Your task to perform on an android device: toggle pop-ups in chrome Image 0: 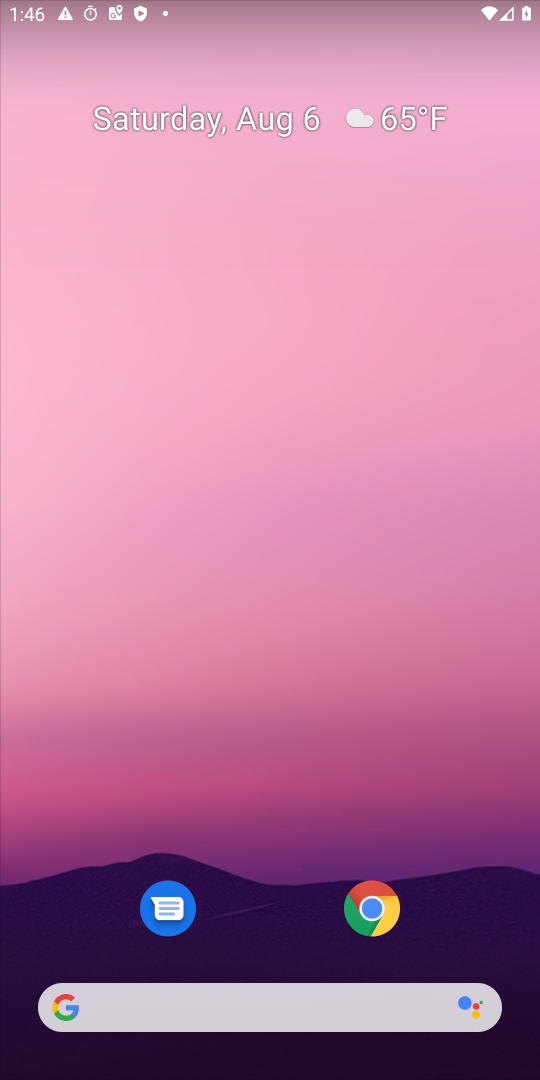
Step 0: click (355, 908)
Your task to perform on an android device: toggle pop-ups in chrome Image 1: 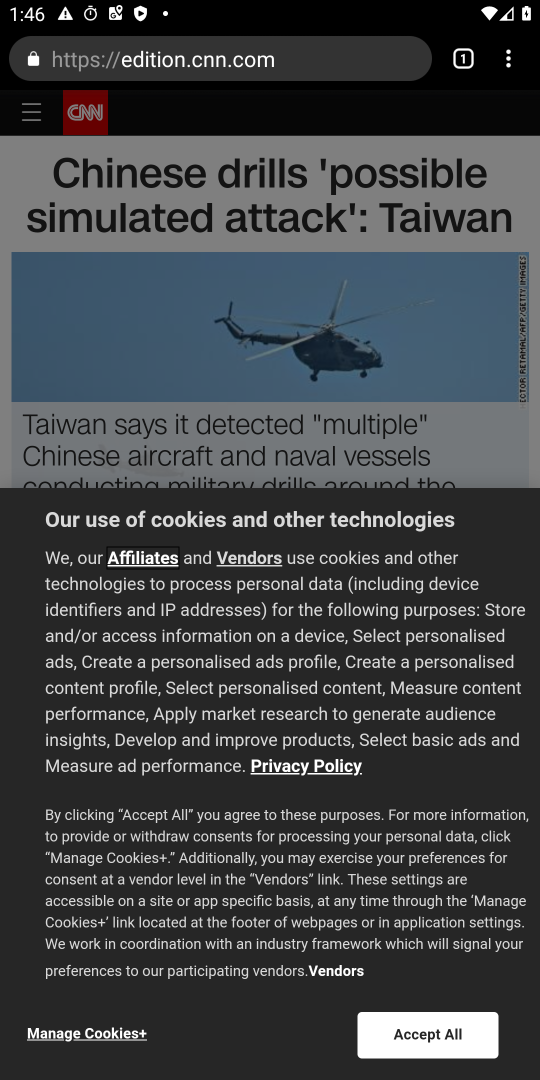
Step 1: click (517, 48)
Your task to perform on an android device: toggle pop-ups in chrome Image 2: 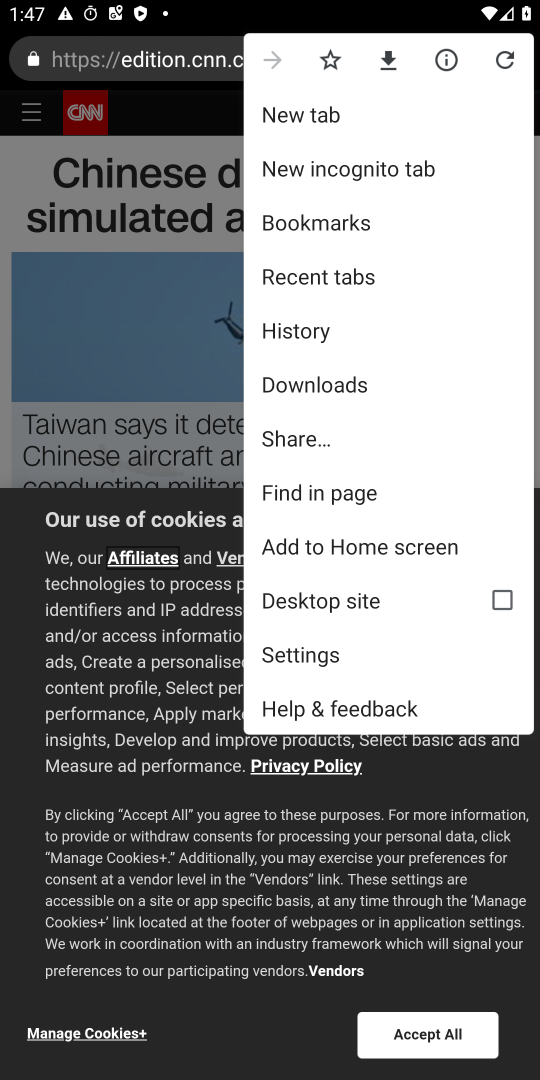
Step 2: click (318, 639)
Your task to perform on an android device: toggle pop-ups in chrome Image 3: 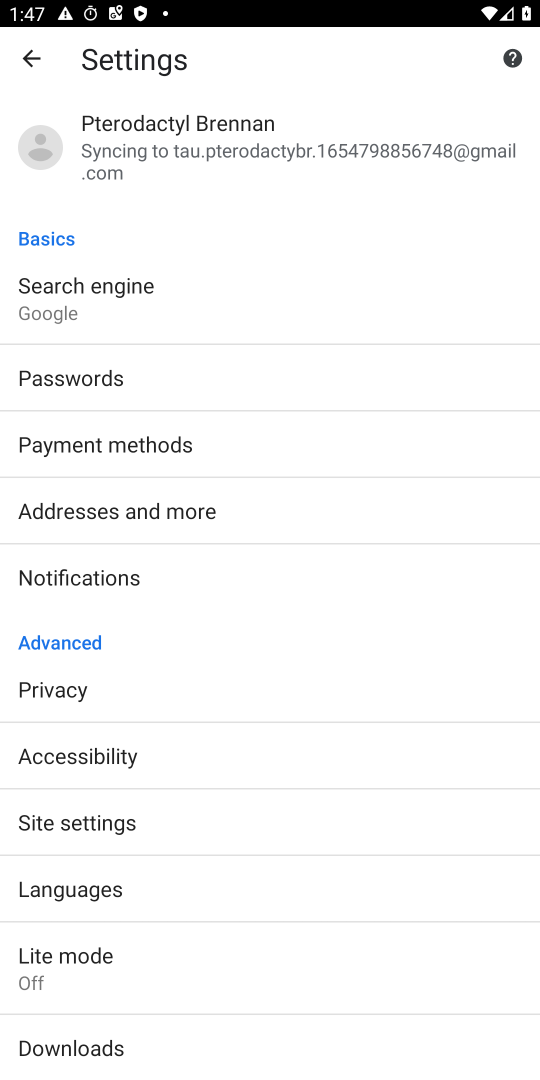
Step 3: click (134, 826)
Your task to perform on an android device: toggle pop-ups in chrome Image 4: 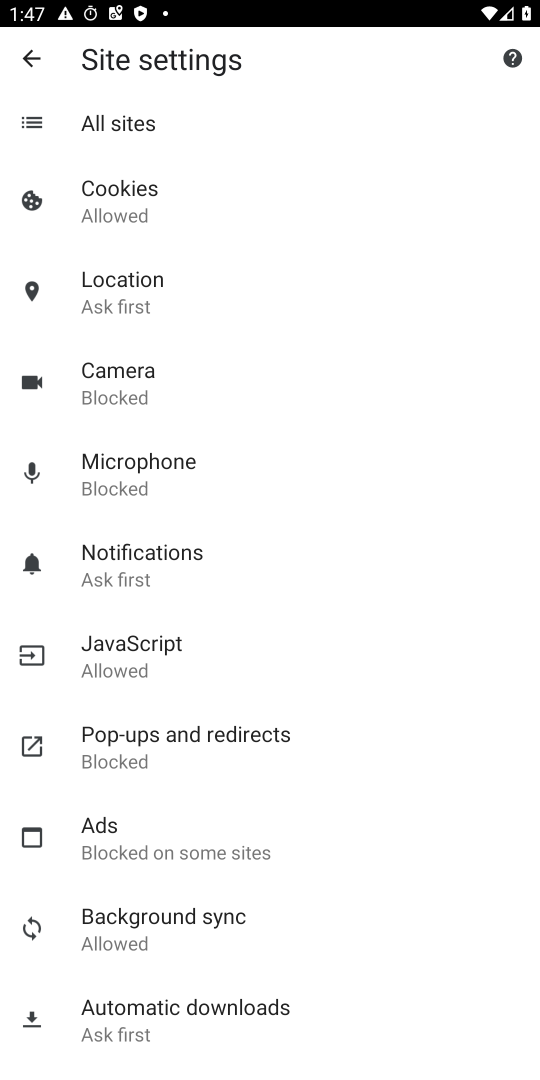
Step 4: click (189, 748)
Your task to perform on an android device: toggle pop-ups in chrome Image 5: 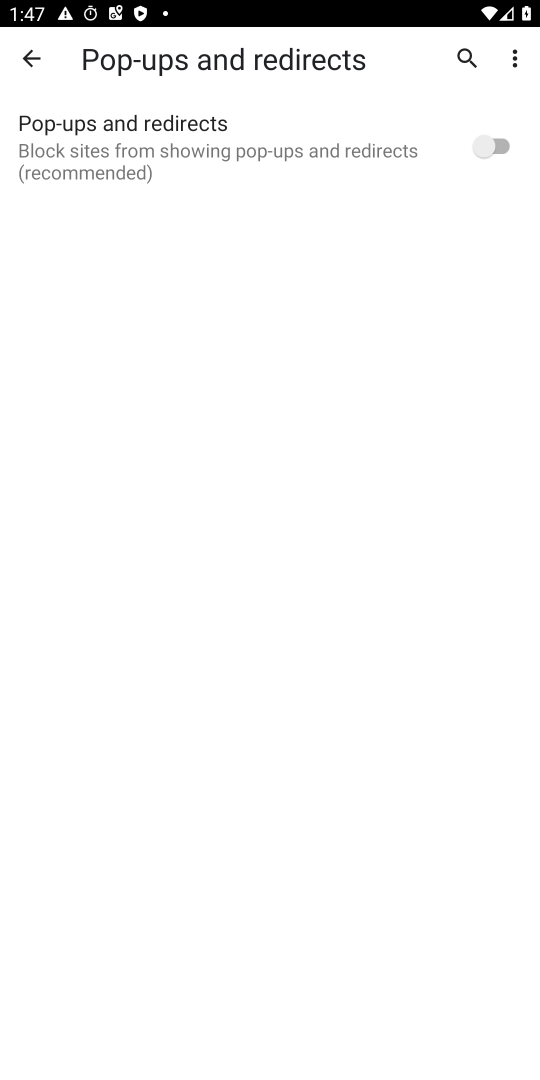
Step 5: click (489, 120)
Your task to perform on an android device: toggle pop-ups in chrome Image 6: 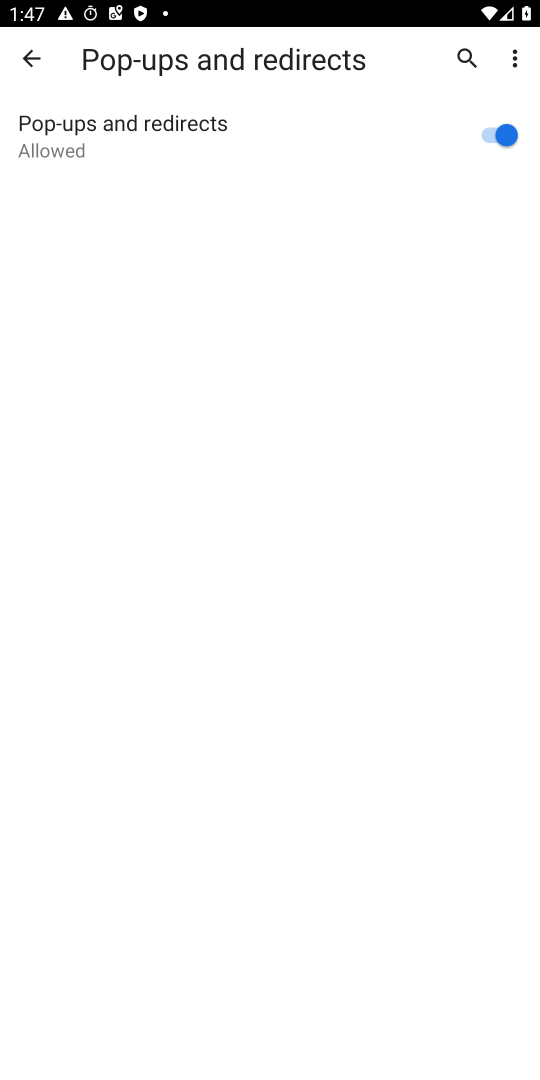
Step 6: task complete